Your task to perform on an android device: toggle priority inbox in the gmail app Image 0: 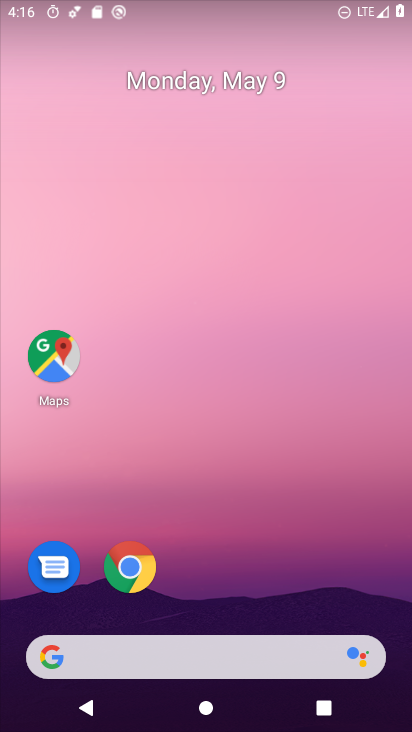
Step 0: drag from (277, 591) to (231, 134)
Your task to perform on an android device: toggle priority inbox in the gmail app Image 1: 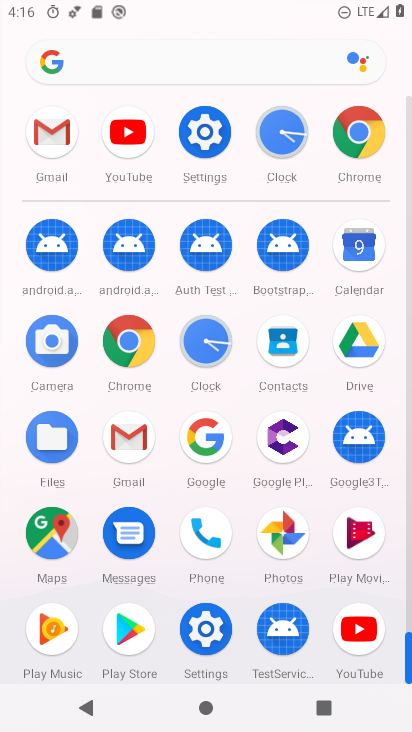
Step 1: click (136, 428)
Your task to perform on an android device: toggle priority inbox in the gmail app Image 2: 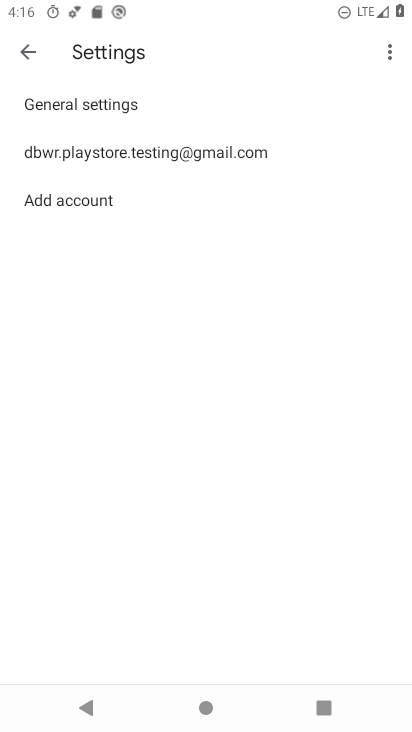
Step 2: click (104, 152)
Your task to perform on an android device: toggle priority inbox in the gmail app Image 3: 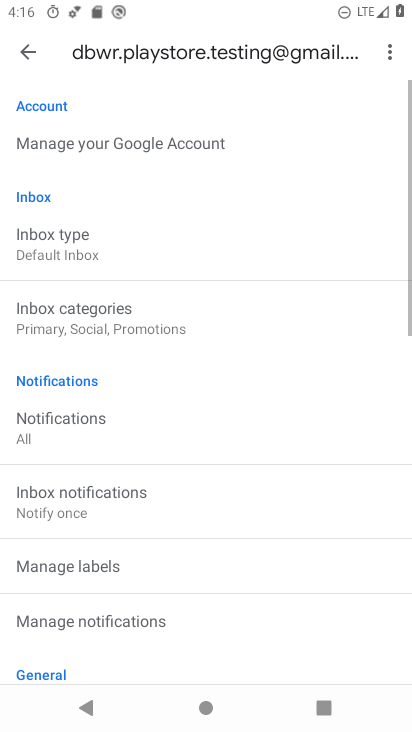
Step 3: click (77, 252)
Your task to perform on an android device: toggle priority inbox in the gmail app Image 4: 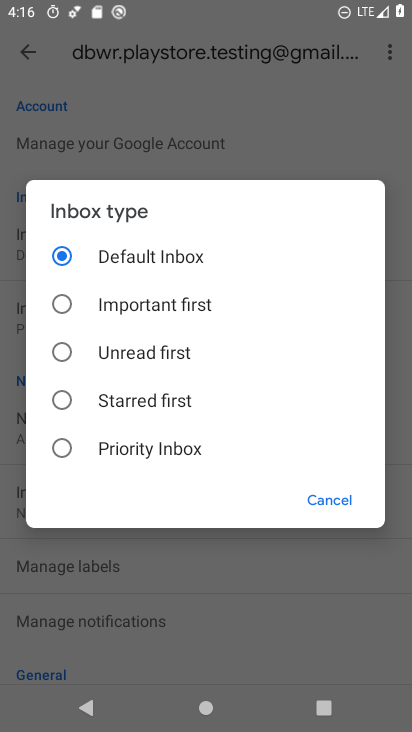
Step 4: click (56, 443)
Your task to perform on an android device: toggle priority inbox in the gmail app Image 5: 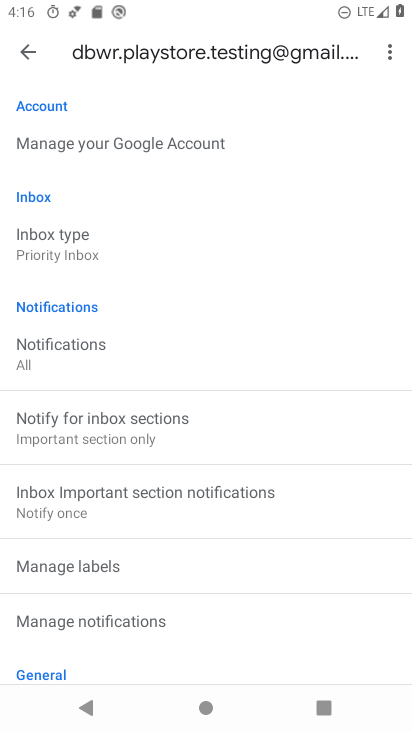
Step 5: task complete